Your task to perform on an android device: Open settings on Google Maps Image 0: 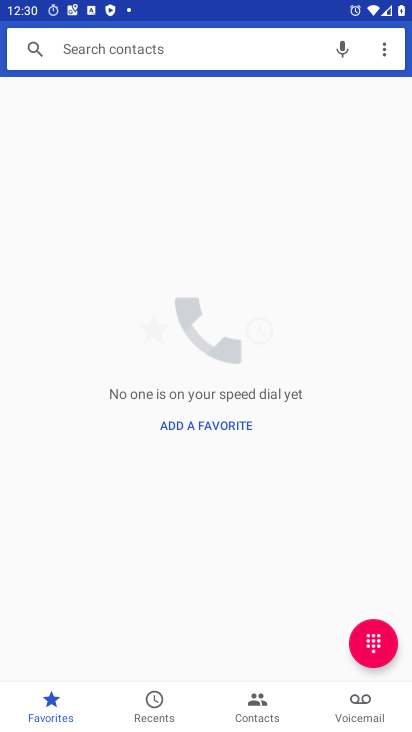
Step 0: press home button
Your task to perform on an android device: Open settings on Google Maps Image 1: 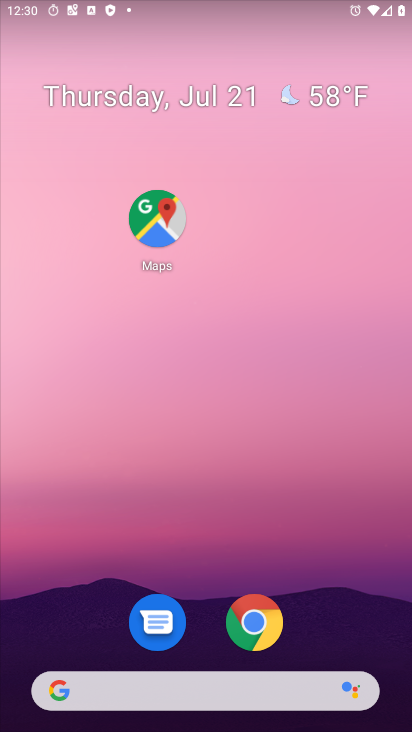
Step 1: click (150, 224)
Your task to perform on an android device: Open settings on Google Maps Image 2: 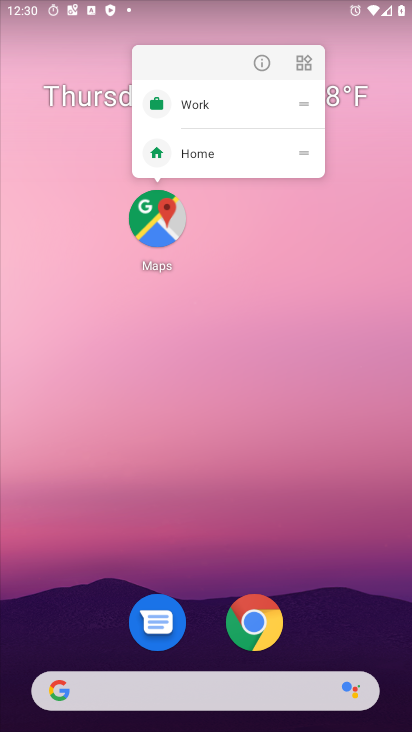
Step 2: click (151, 225)
Your task to perform on an android device: Open settings on Google Maps Image 3: 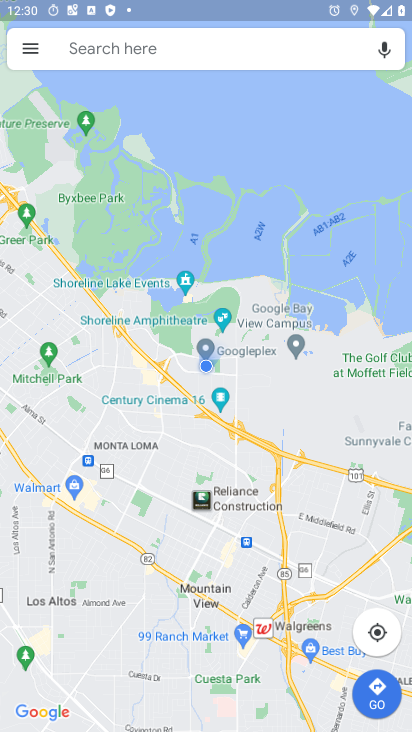
Step 3: click (27, 45)
Your task to perform on an android device: Open settings on Google Maps Image 4: 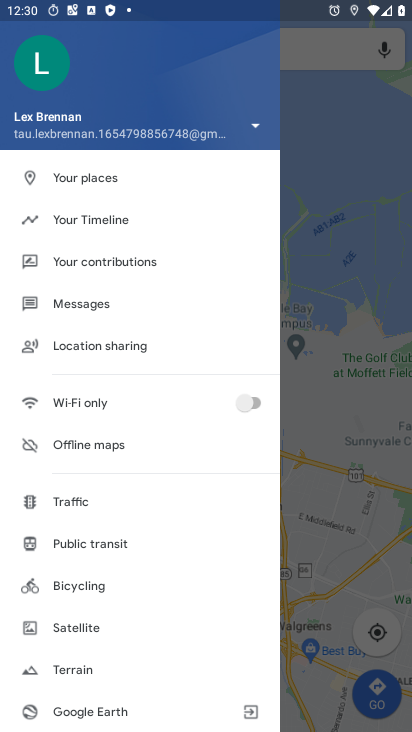
Step 4: drag from (176, 618) to (174, 388)
Your task to perform on an android device: Open settings on Google Maps Image 5: 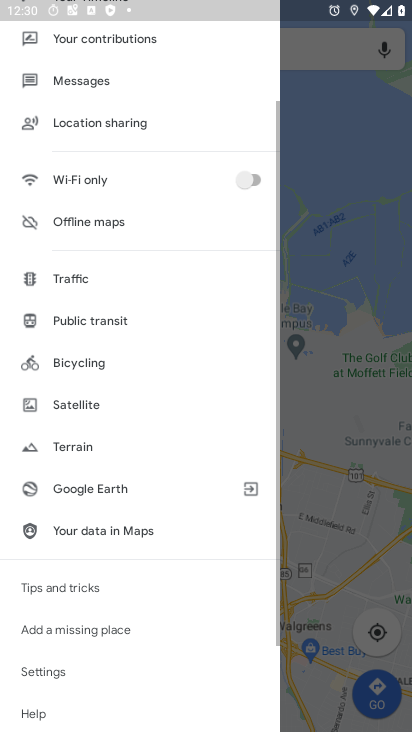
Step 5: click (60, 668)
Your task to perform on an android device: Open settings on Google Maps Image 6: 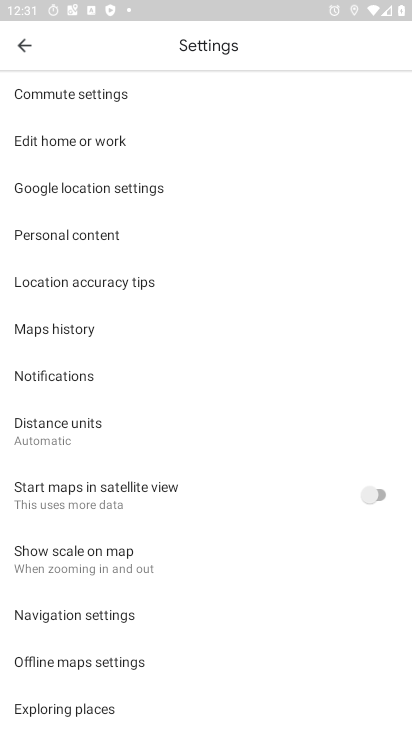
Step 6: task complete